Your task to perform on an android device: star an email in the gmail app Image 0: 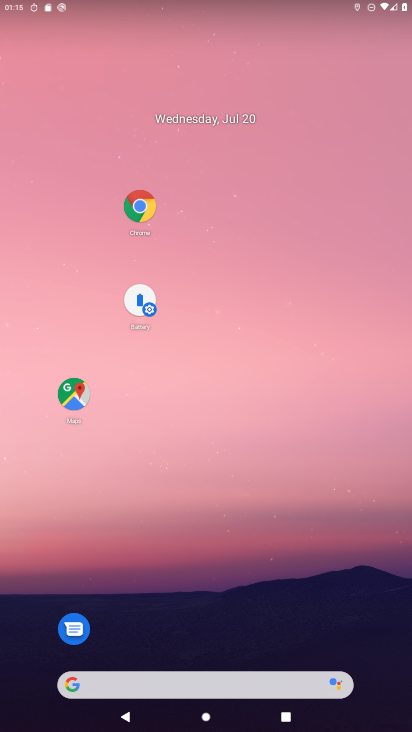
Step 0: click (355, 191)
Your task to perform on an android device: star an email in the gmail app Image 1: 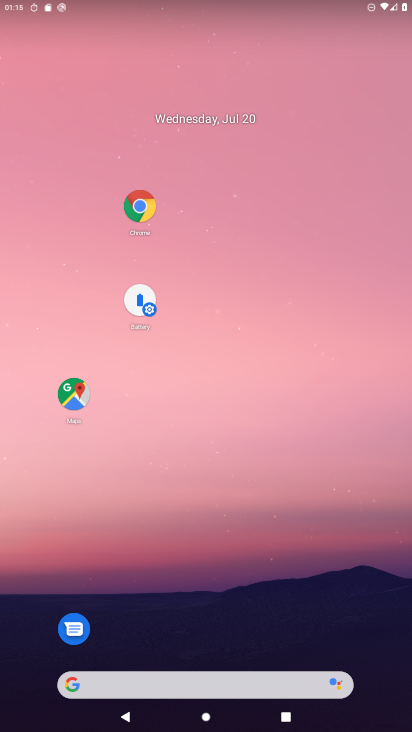
Step 1: drag from (154, 590) to (238, 92)
Your task to perform on an android device: star an email in the gmail app Image 2: 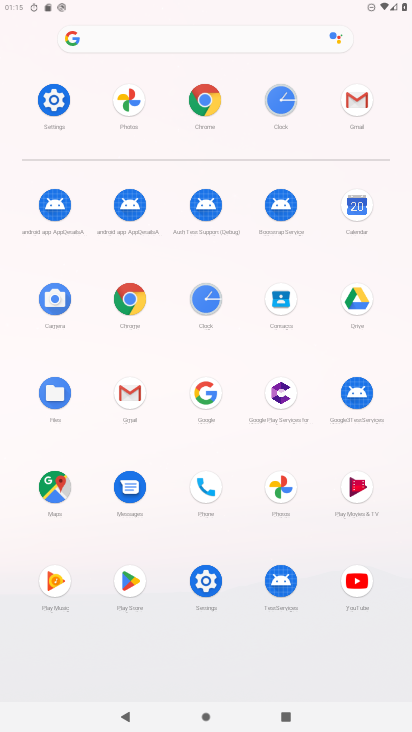
Step 2: click (128, 393)
Your task to perform on an android device: star an email in the gmail app Image 3: 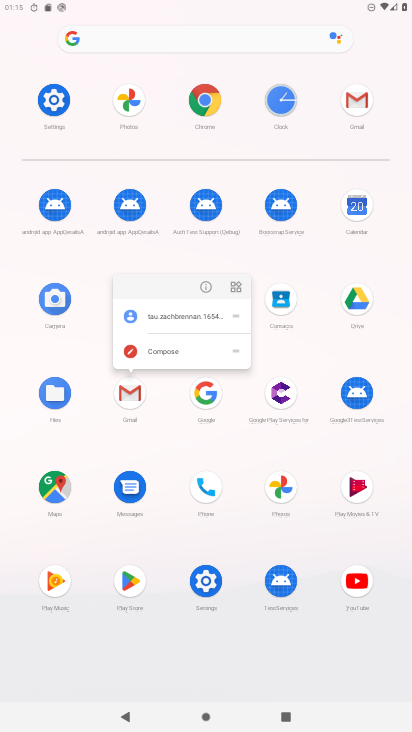
Step 3: click (213, 283)
Your task to perform on an android device: star an email in the gmail app Image 4: 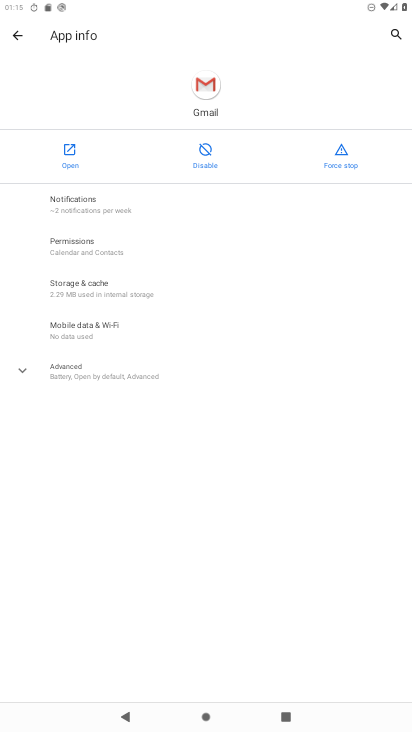
Step 4: click (64, 153)
Your task to perform on an android device: star an email in the gmail app Image 5: 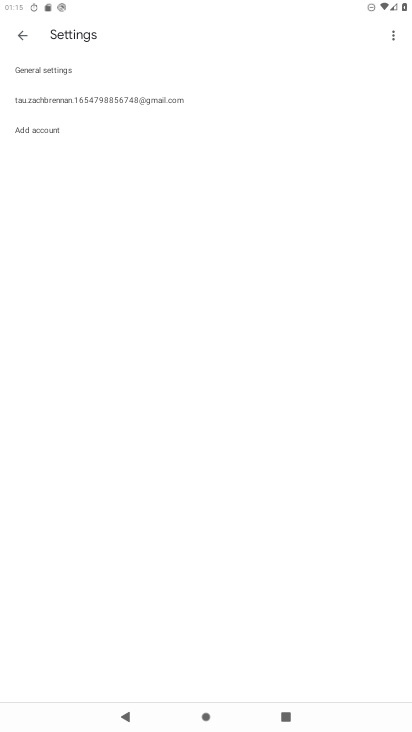
Step 5: click (22, 28)
Your task to perform on an android device: star an email in the gmail app Image 6: 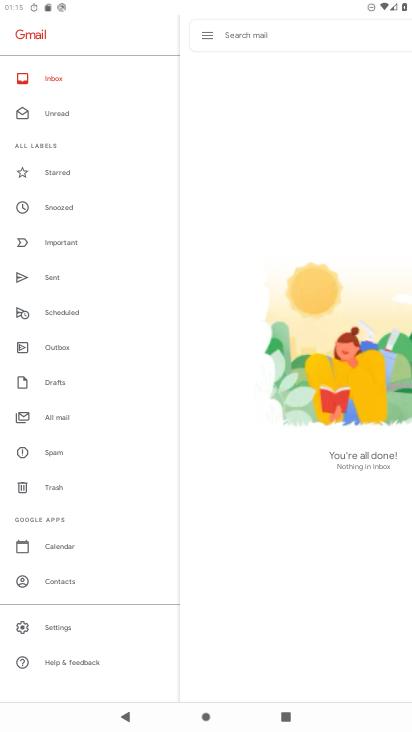
Step 6: click (262, 203)
Your task to perform on an android device: star an email in the gmail app Image 7: 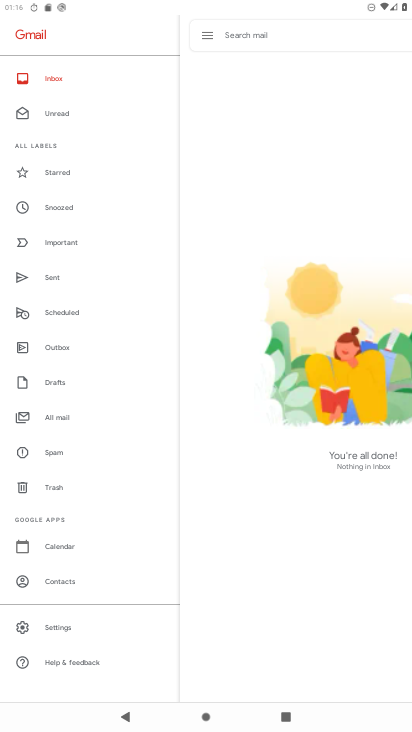
Step 7: click (237, 235)
Your task to perform on an android device: star an email in the gmail app Image 8: 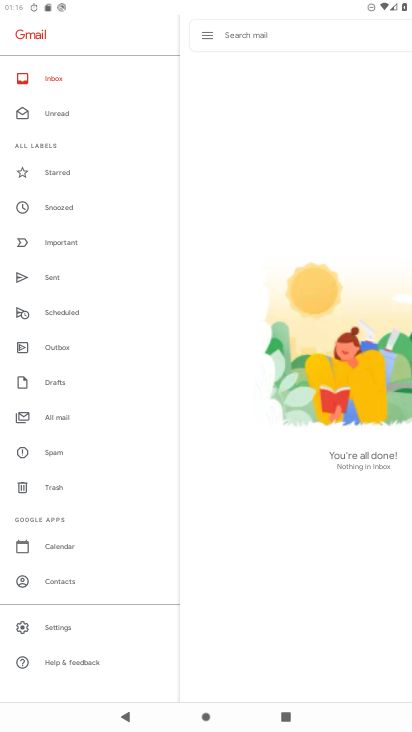
Step 8: task complete